Your task to perform on an android device: Open the phone app and click the voicemail tab. Image 0: 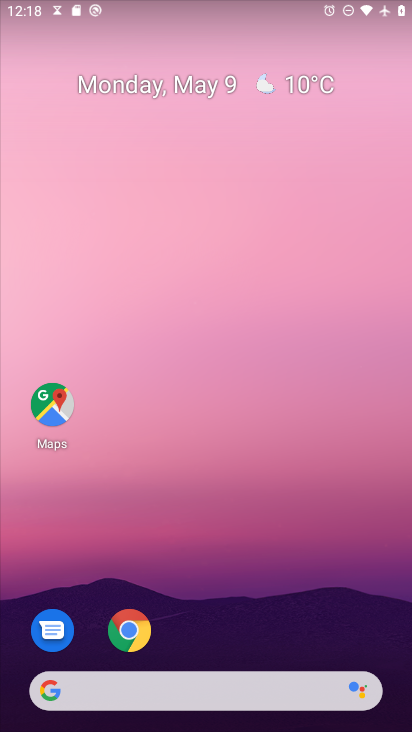
Step 0: drag from (203, 695) to (363, 178)
Your task to perform on an android device: Open the phone app and click the voicemail tab. Image 1: 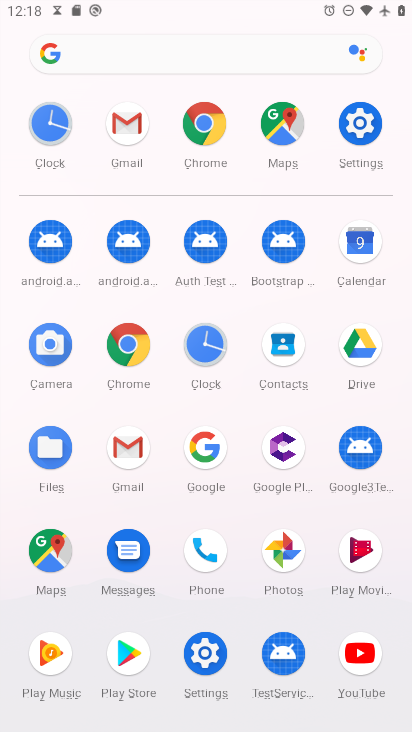
Step 1: click (209, 559)
Your task to perform on an android device: Open the phone app and click the voicemail tab. Image 2: 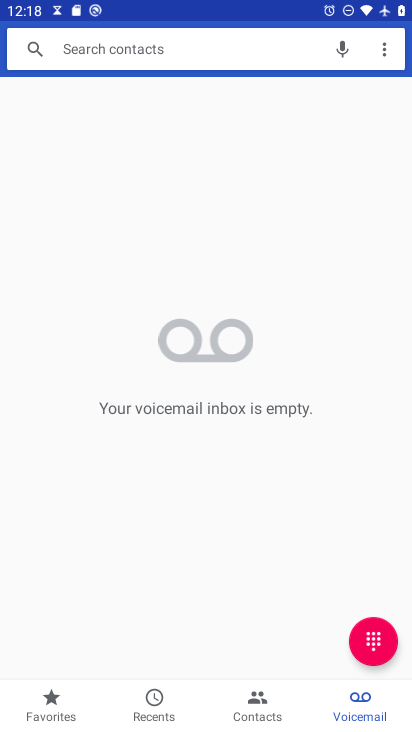
Step 2: click (369, 709)
Your task to perform on an android device: Open the phone app and click the voicemail tab. Image 3: 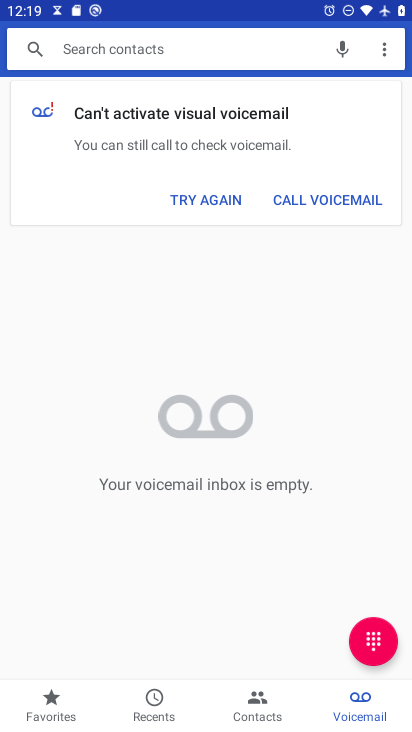
Step 3: task complete